Your task to perform on an android device: turn pop-ups off in chrome Image 0: 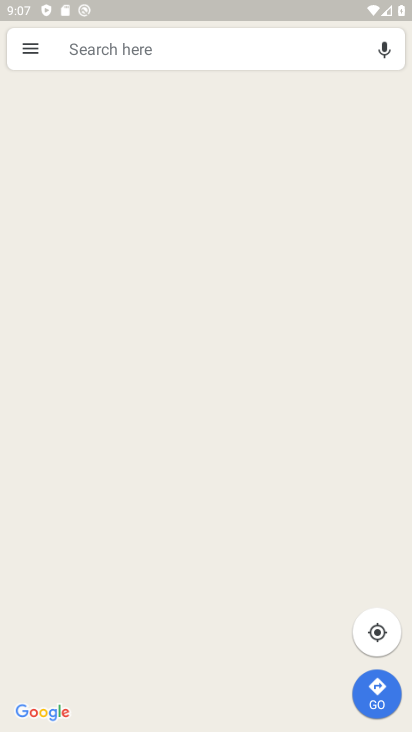
Step 0: drag from (199, 607) to (195, 364)
Your task to perform on an android device: turn pop-ups off in chrome Image 1: 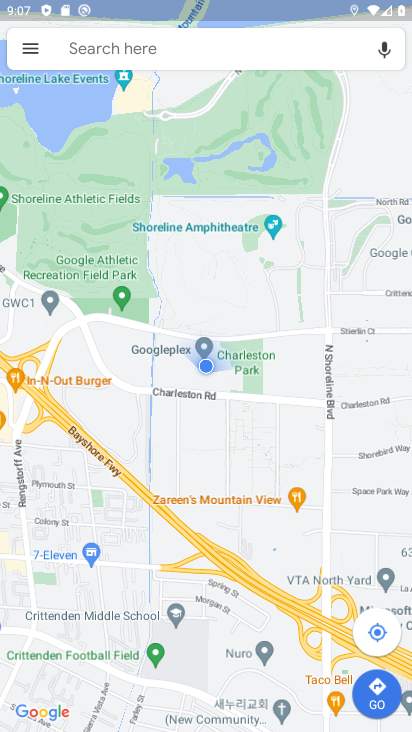
Step 1: press home button
Your task to perform on an android device: turn pop-ups off in chrome Image 2: 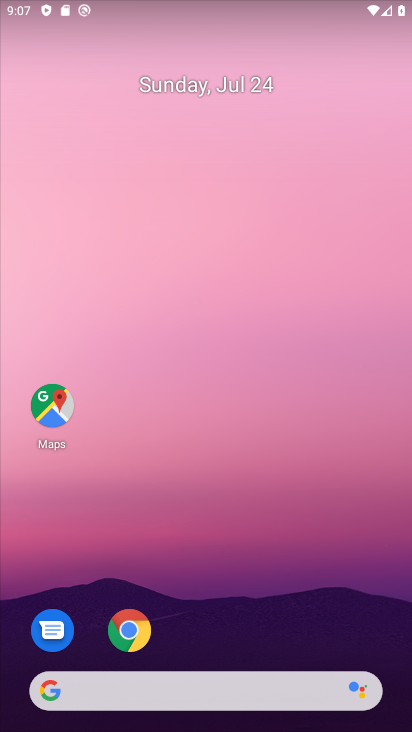
Step 2: drag from (196, 639) to (230, 144)
Your task to perform on an android device: turn pop-ups off in chrome Image 3: 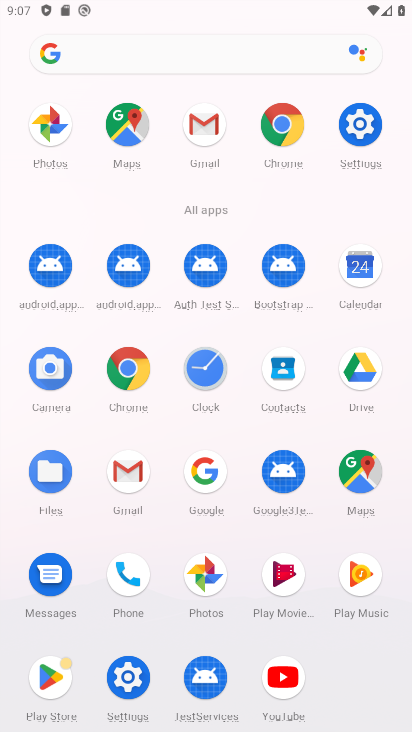
Step 3: click (284, 112)
Your task to perform on an android device: turn pop-ups off in chrome Image 4: 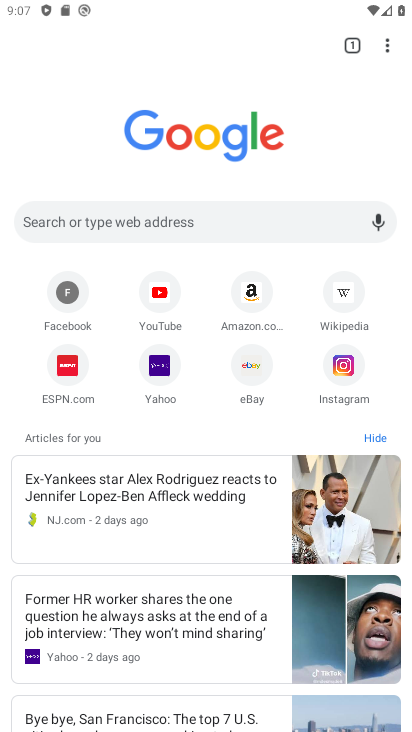
Step 4: click (389, 43)
Your task to perform on an android device: turn pop-ups off in chrome Image 5: 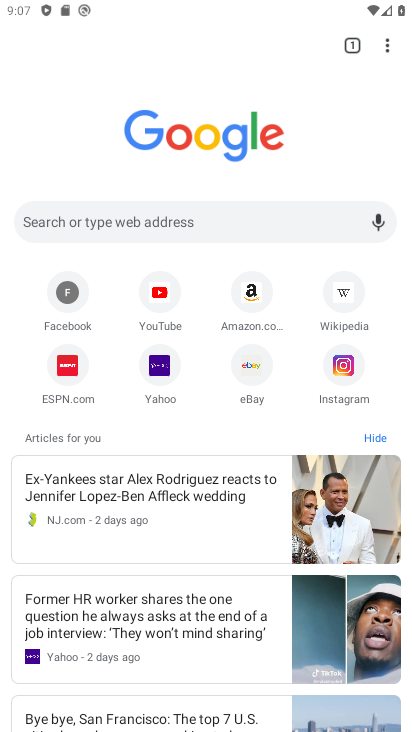
Step 5: click (389, 43)
Your task to perform on an android device: turn pop-ups off in chrome Image 6: 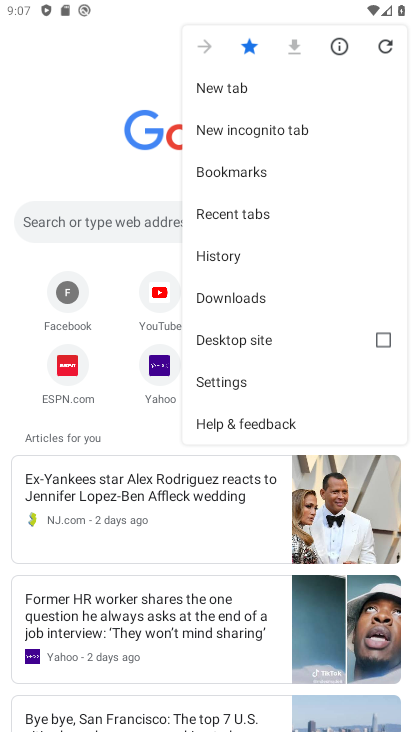
Step 6: click (238, 378)
Your task to perform on an android device: turn pop-ups off in chrome Image 7: 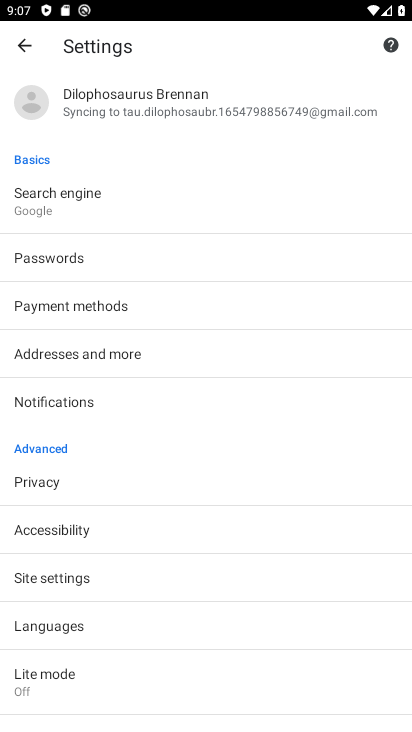
Step 7: drag from (169, 591) to (162, 278)
Your task to perform on an android device: turn pop-ups off in chrome Image 8: 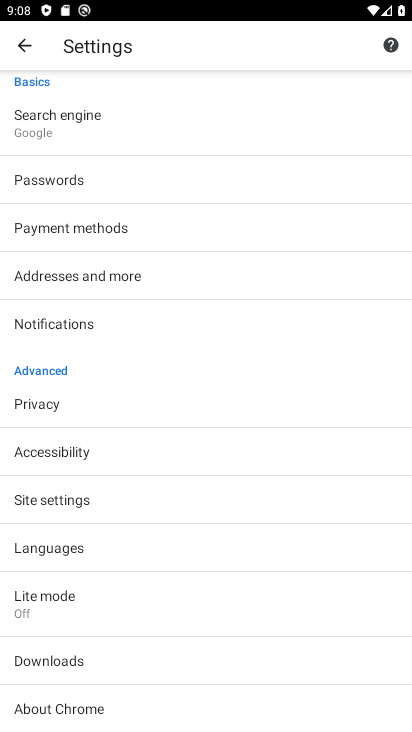
Step 8: click (145, 491)
Your task to perform on an android device: turn pop-ups off in chrome Image 9: 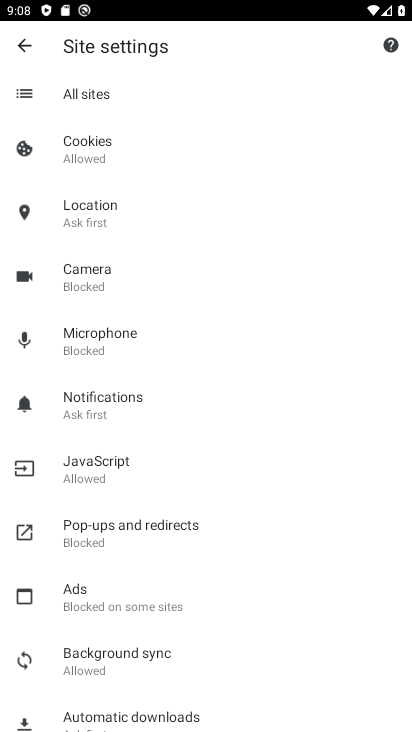
Step 9: click (140, 538)
Your task to perform on an android device: turn pop-ups off in chrome Image 10: 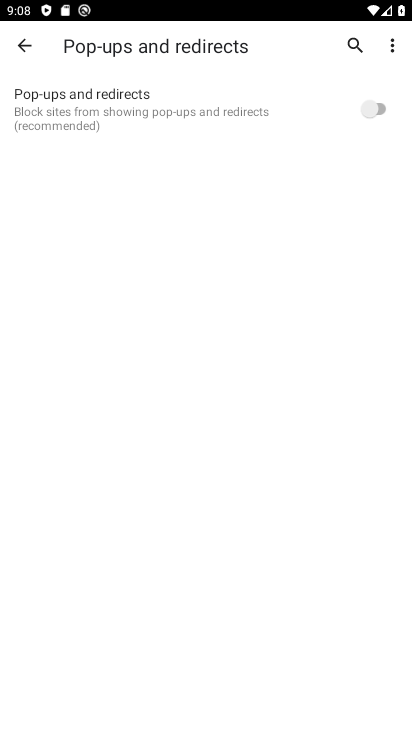
Step 10: click (376, 111)
Your task to perform on an android device: turn pop-ups off in chrome Image 11: 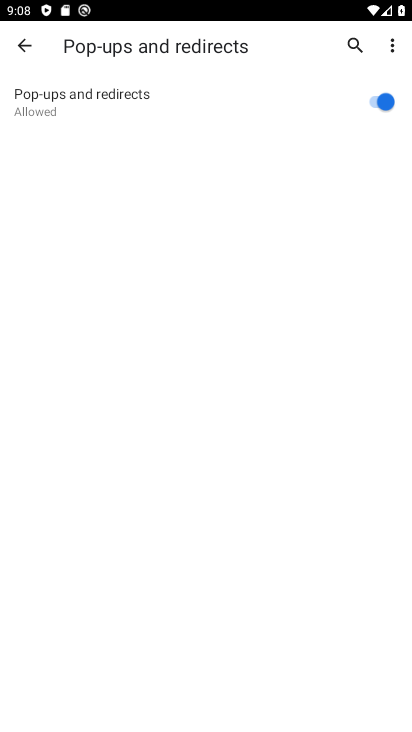
Step 11: task complete